Your task to perform on an android device: Open the map Image 0: 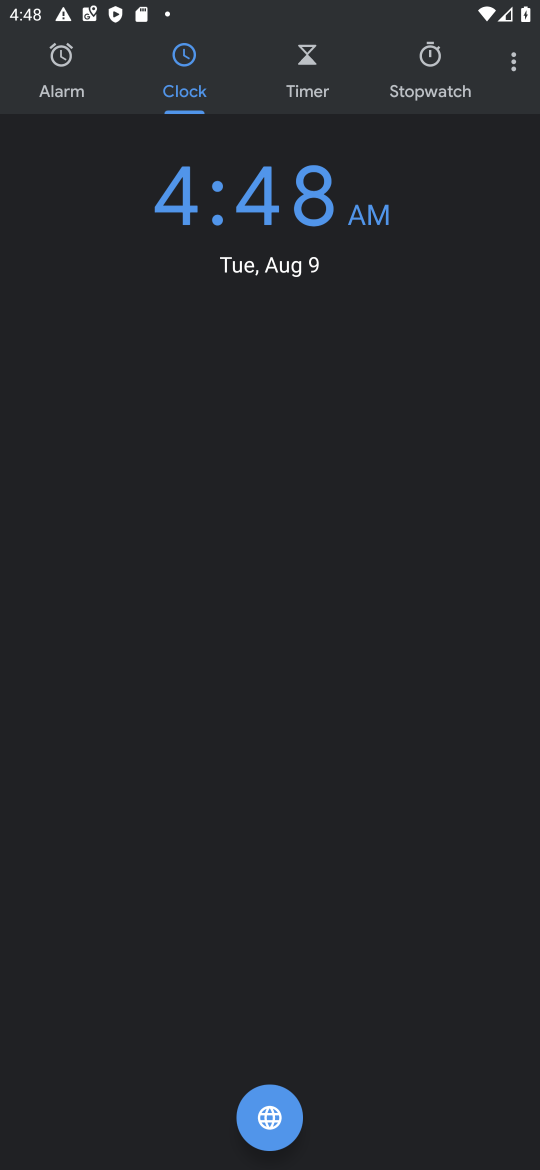
Step 0: press home button
Your task to perform on an android device: Open the map Image 1: 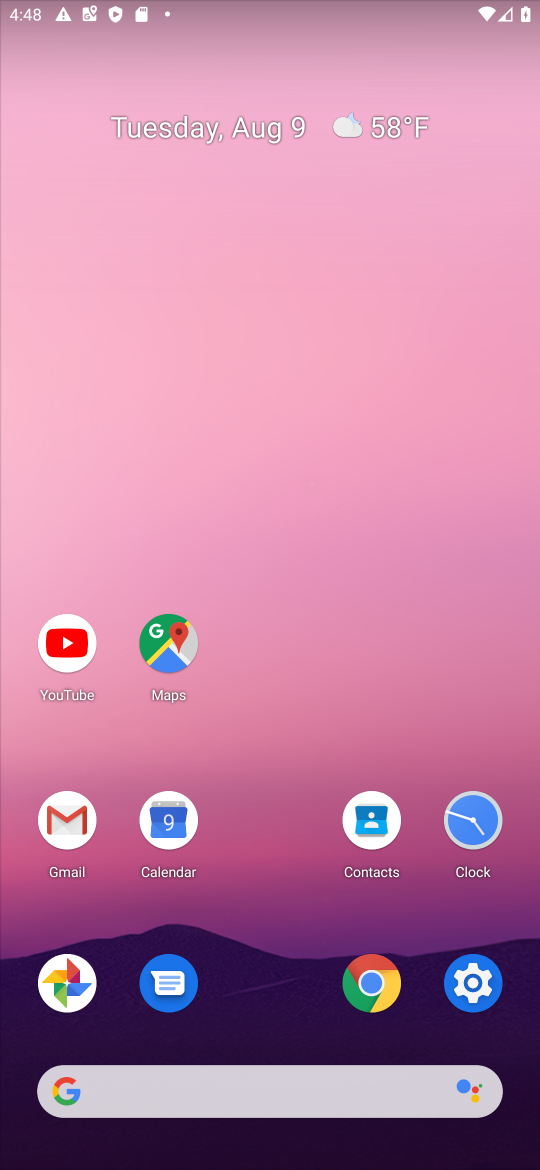
Step 1: click (169, 643)
Your task to perform on an android device: Open the map Image 2: 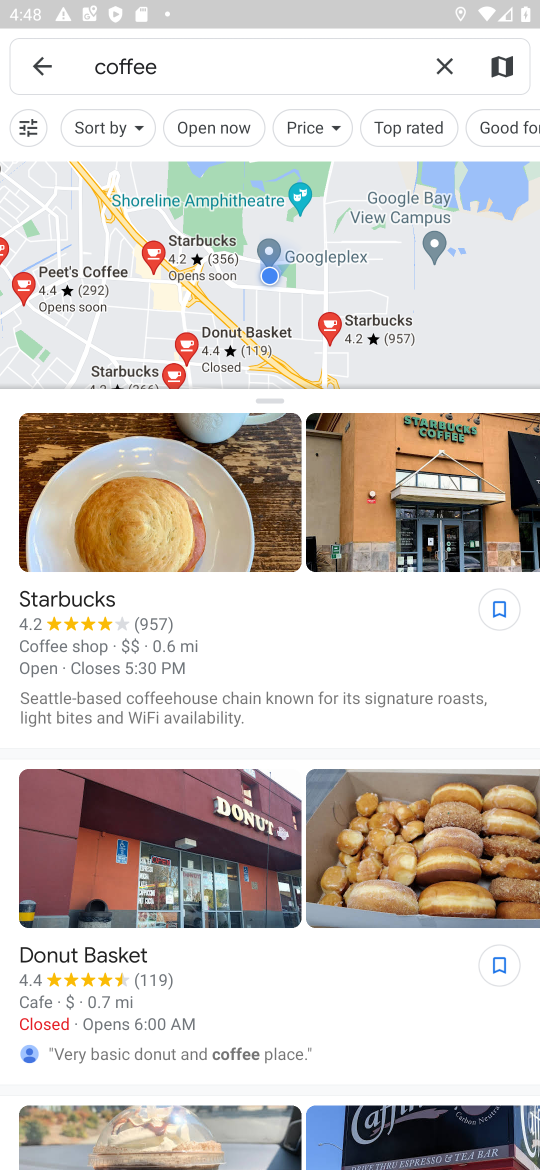
Step 2: click (33, 57)
Your task to perform on an android device: Open the map Image 3: 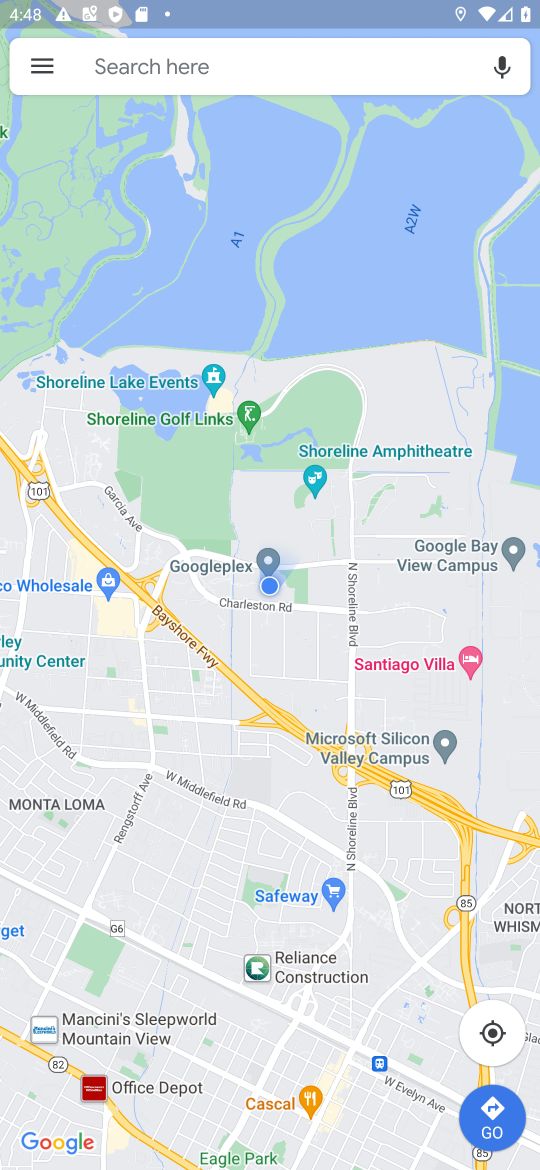
Step 3: task complete